Your task to perform on an android device: make emails show in primary in the gmail app Image 0: 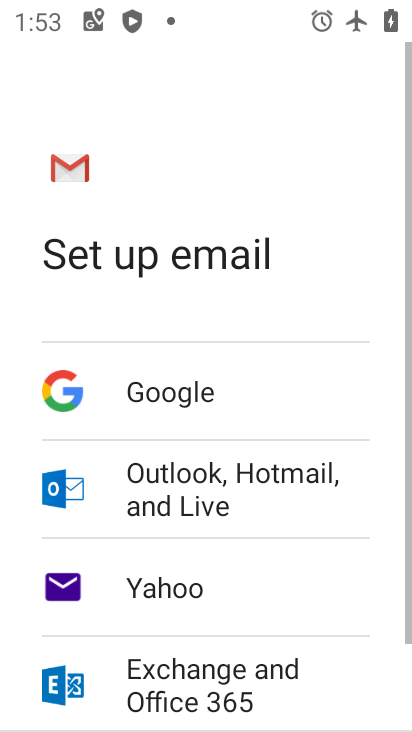
Step 0: press home button
Your task to perform on an android device: make emails show in primary in the gmail app Image 1: 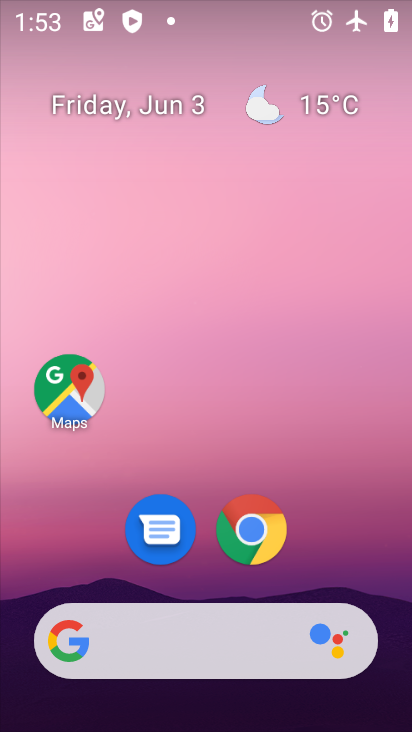
Step 1: drag from (344, 536) to (335, 180)
Your task to perform on an android device: make emails show in primary in the gmail app Image 2: 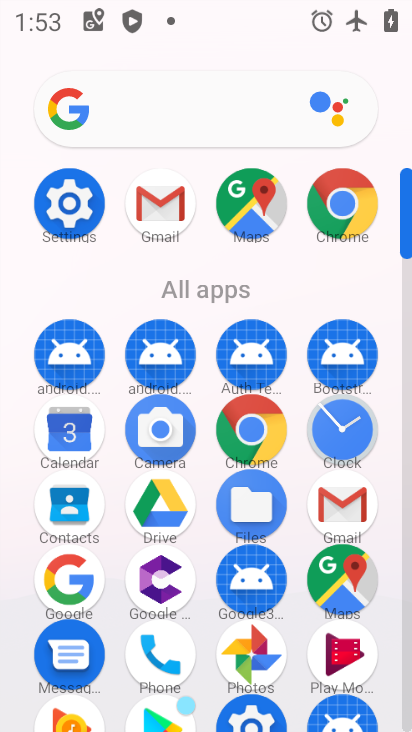
Step 2: click (359, 502)
Your task to perform on an android device: make emails show in primary in the gmail app Image 3: 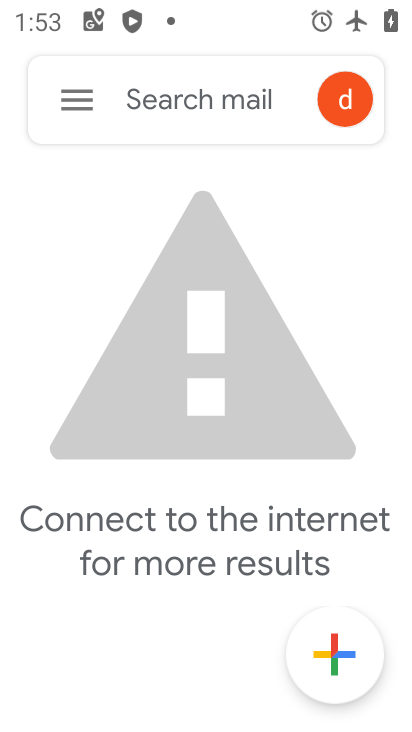
Step 3: click (79, 109)
Your task to perform on an android device: make emails show in primary in the gmail app Image 4: 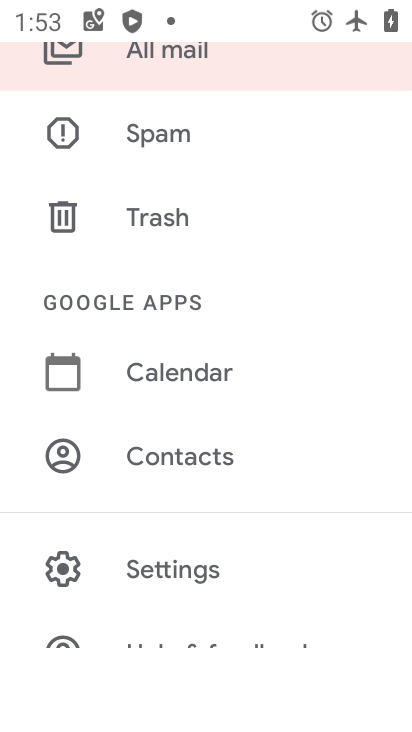
Step 4: click (205, 578)
Your task to perform on an android device: make emails show in primary in the gmail app Image 5: 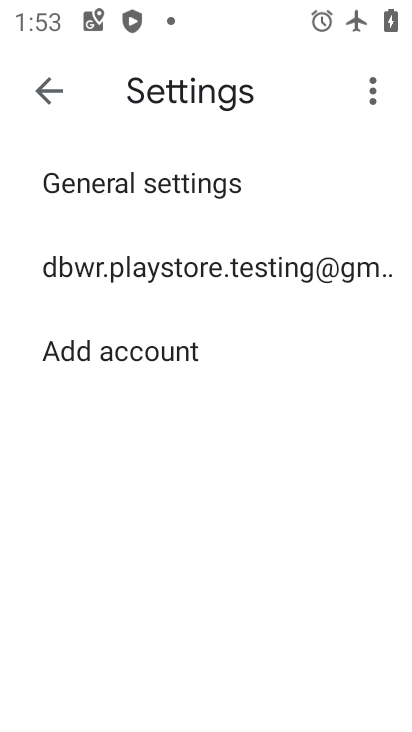
Step 5: click (266, 259)
Your task to perform on an android device: make emails show in primary in the gmail app Image 6: 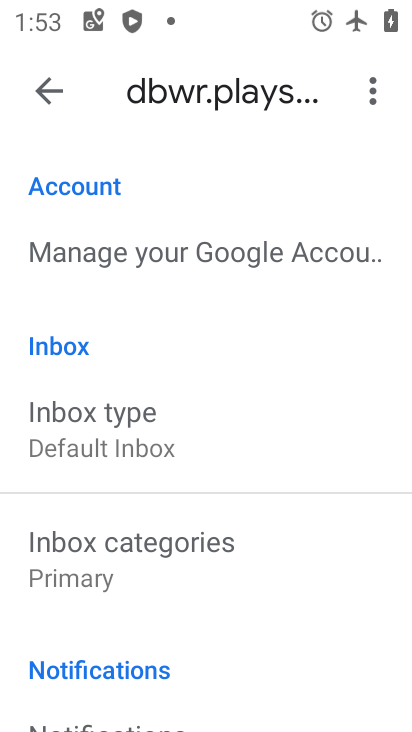
Step 6: drag from (323, 438) to (318, 352)
Your task to perform on an android device: make emails show in primary in the gmail app Image 7: 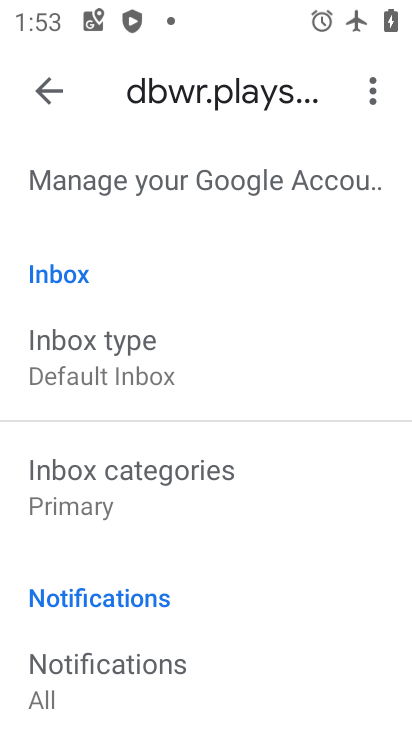
Step 7: drag from (317, 475) to (317, 378)
Your task to perform on an android device: make emails show in primary in the gmail app Image 8: 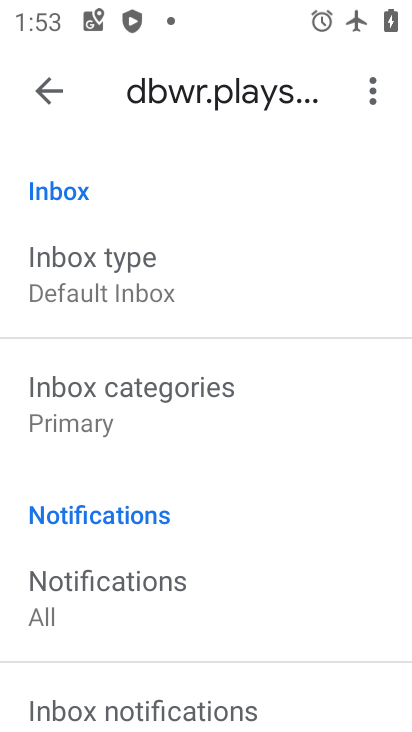
Step 8: drag from (313, 484) to (310, 352)
Your task to perform on an android device: make emails show in primary in the gmail app Image 9: 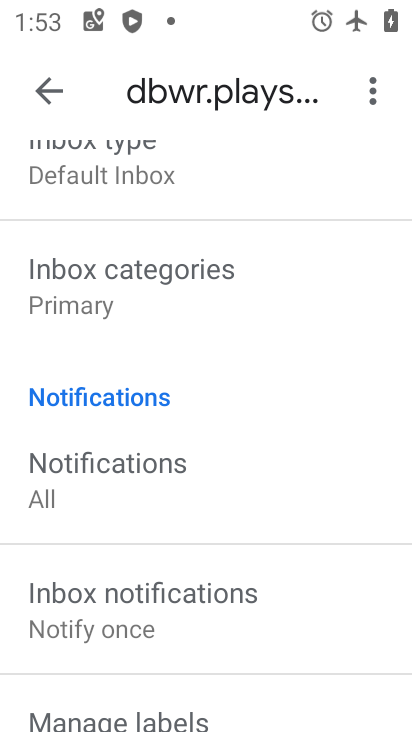
Step 9: drag from (316, 461) to (310, 346)
Your task to perform on an android device: make emails show in primary in the gmail app Image 10: 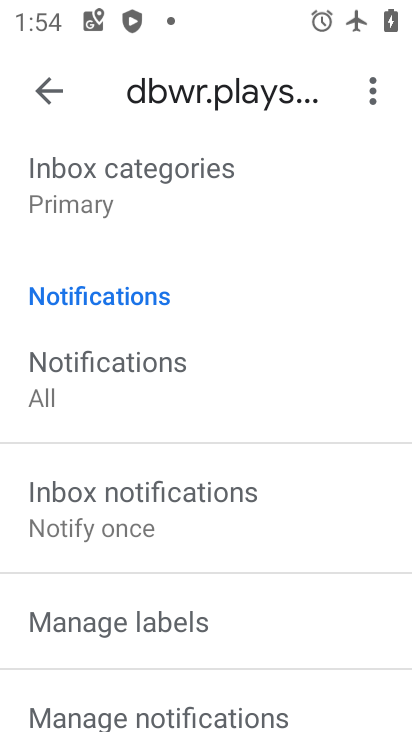
Step 10: drag from (287, 246) to (292, 417)
Your task to perform on an android device: make emails show in primary in the gmail app Image 11: 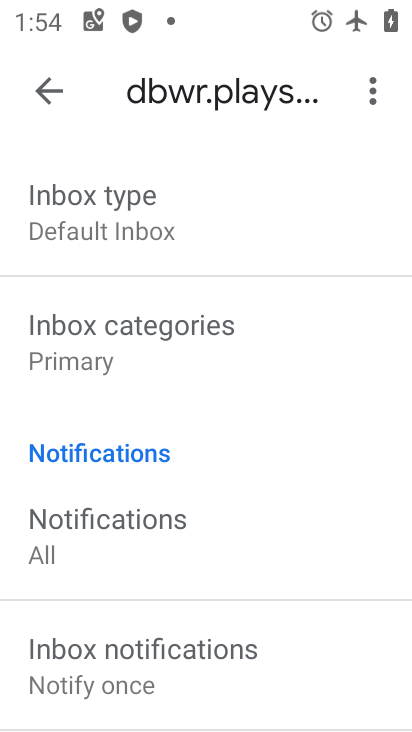
Step 11: click (158, 365)
Your task to perform on an android device: make emails show in primary in the gmail app Image 12: 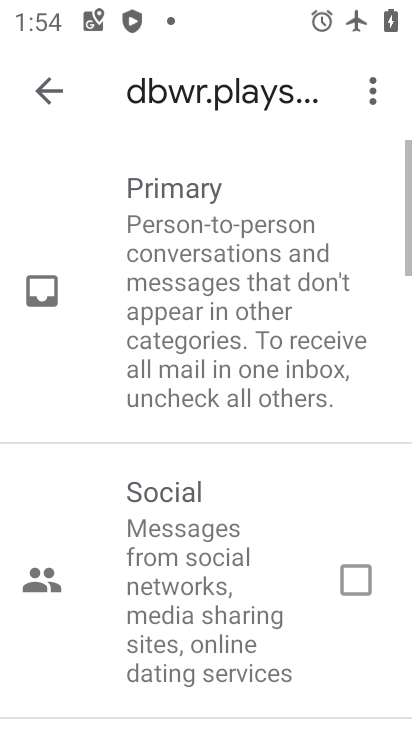
Step 12: task complete